Your task to perform on an android device: toggle show notifications on the lock screen Image 0: 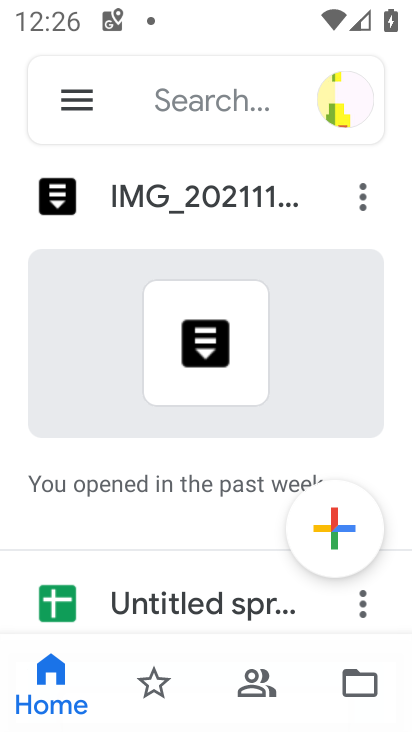
Step 0: press home button
Your task to perform on an android device: toggle show notifications on the lock screen Image 1: 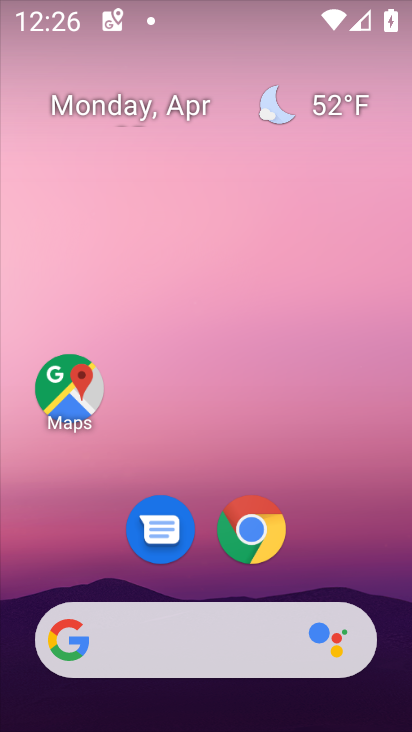
Step 1: drag from (383, 451) to (374, 200)
Your task to perform on an android device: toggle show notifications on the lock screen Image 2: 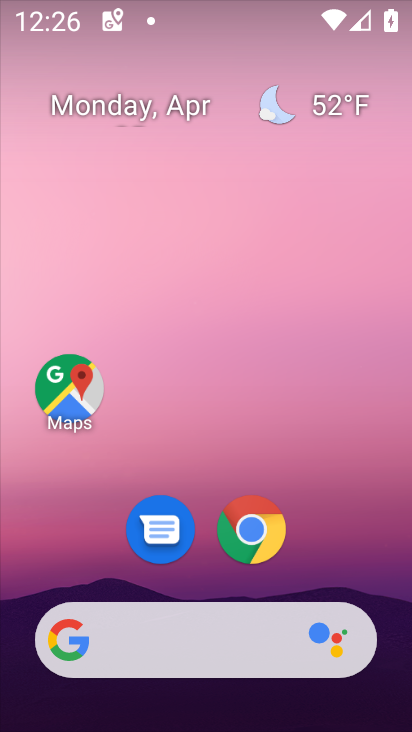
Step 2: drag from (384, 334) to (370, 166)
Your task to perform on an android device: toggle show notifications on the lock screen Image 3: 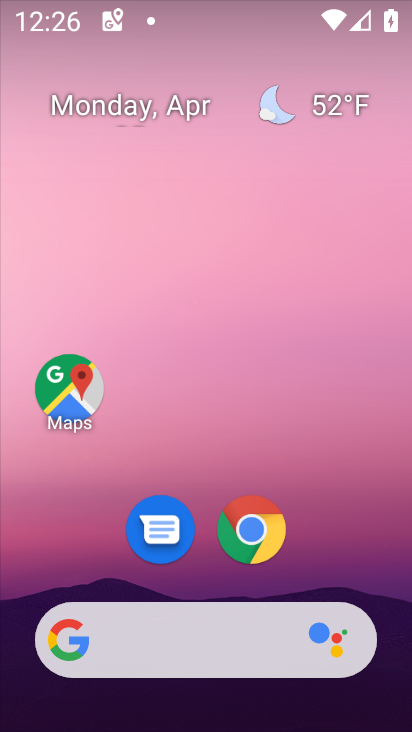
Step 3: drag from (392, 437) to (367, 146)
Your task to perform on an android device: toggle show notifications on the lock screen Image 4: 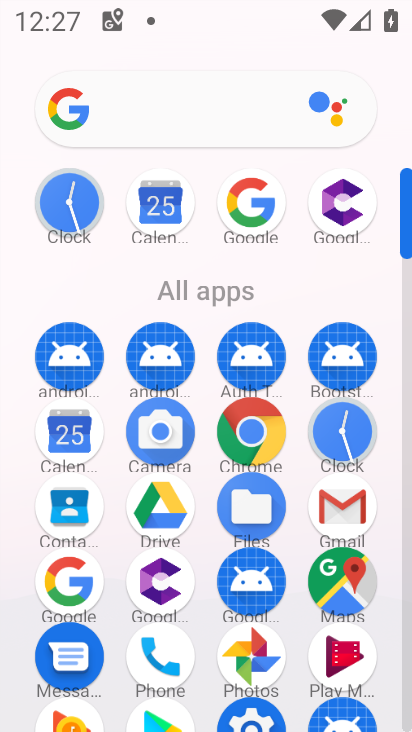
Step 4: click (240, 710)
Your task to perform on an android device: toggle show notifications on the lock screen Image 5: 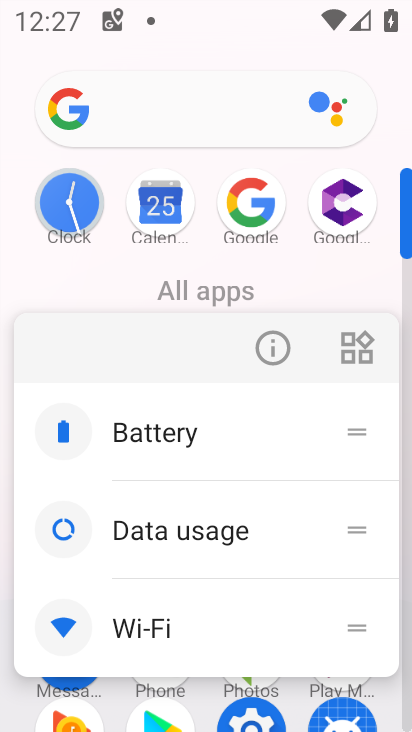
Step 5: click (248, 718)
Your task to perform on an android device: toggle show notifications on the lock screen Image 6: 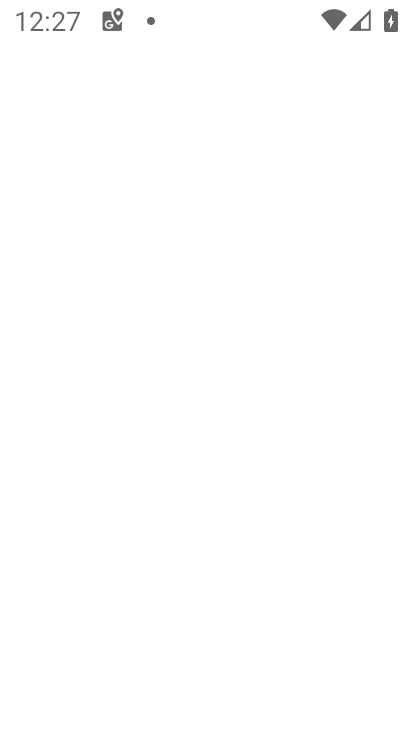
Step 6: click (248, 720)
Your task to perform on an android device: toggle show notifications on the lock screen Image 7: 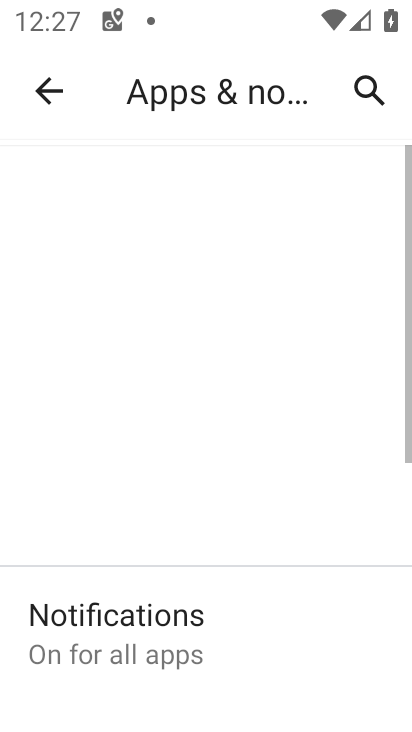
Step 7: click (177, 602)
Your task to perform on an android device: toggle show notifications on the lock screen Image 8: 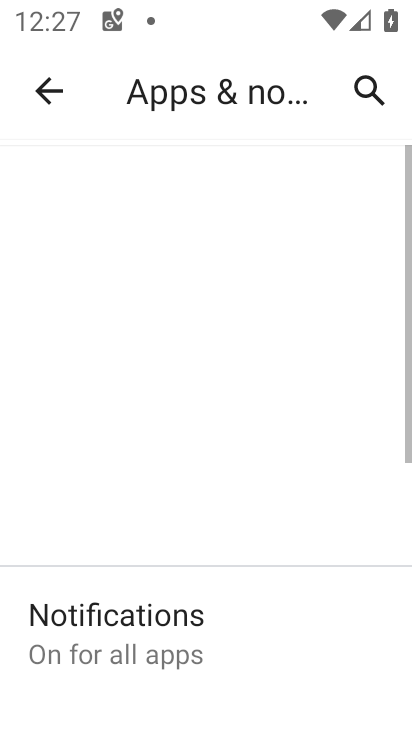
Step 8: click (130, 633)
Your task to perform on an android device: toggle show notifications on the lock screen Image 9: 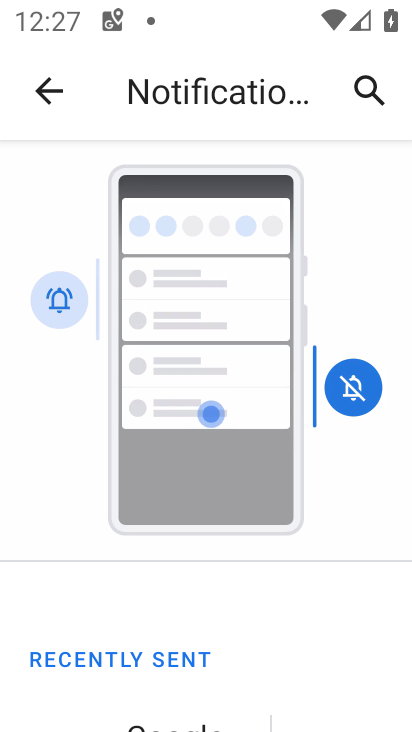
Step 9: drag from (273, 664) to (264, 285)
Your task to perform on an android device: toggle show notifications on the lock screen Image 10: 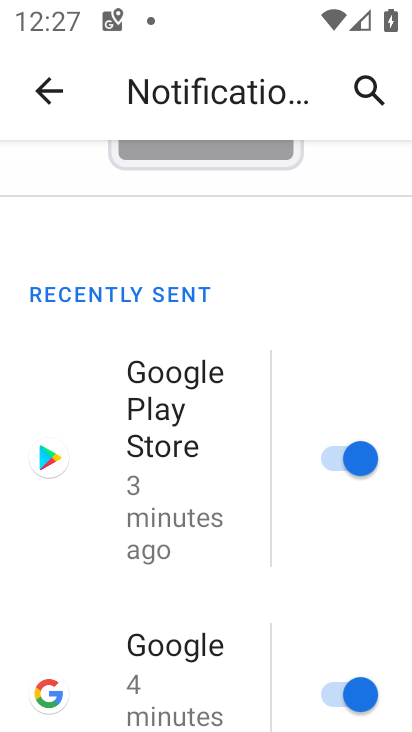
Step 10: drag from (286, 644) to (256, 224)
Your task to perform on an android device: toggle show notifications on the lock screen Image 11: 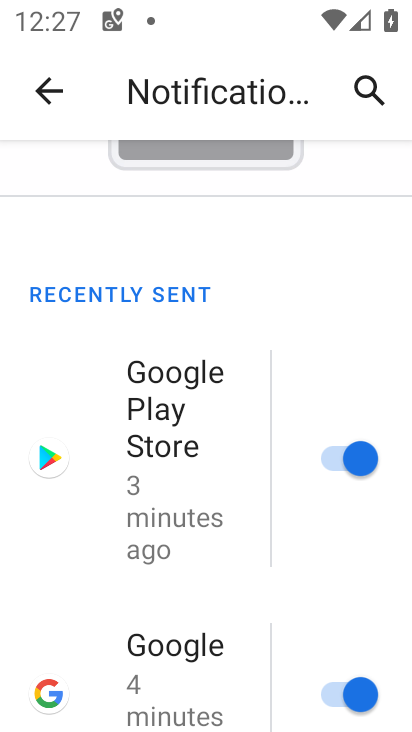
Step 11: drag from (263, 385) to (239, 273)
Your task to perform on an android device: toggle show notifications on the lock screen Image 12: 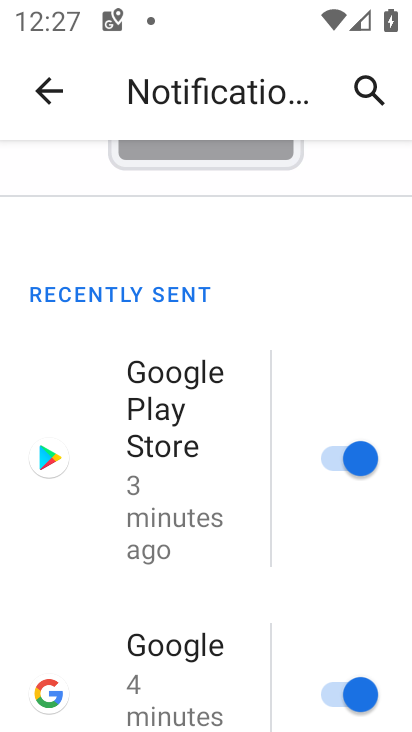
Step 12: drag from (252, 388) to (250, 253)
Your task to perform on an android device: toggle show notifications on the lock screen Image 13: 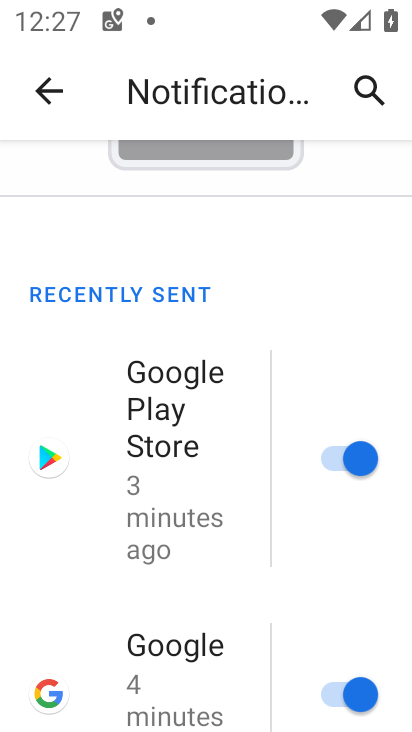
Step 13: drag from (266, 712) to (271, 370)
Your task to perform on an android device: toggle show notifications on the lock screen Image 14: 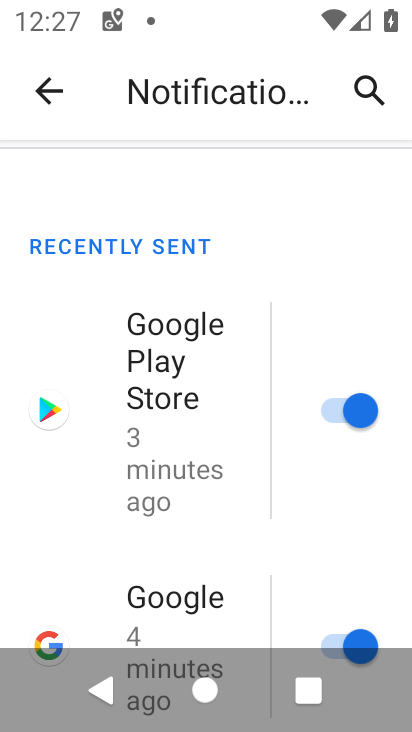
Step 14: drag from (270, 612) to (250, 333)
Your task to perform on an android device: toggle show notifications on the lock screen Image 15: 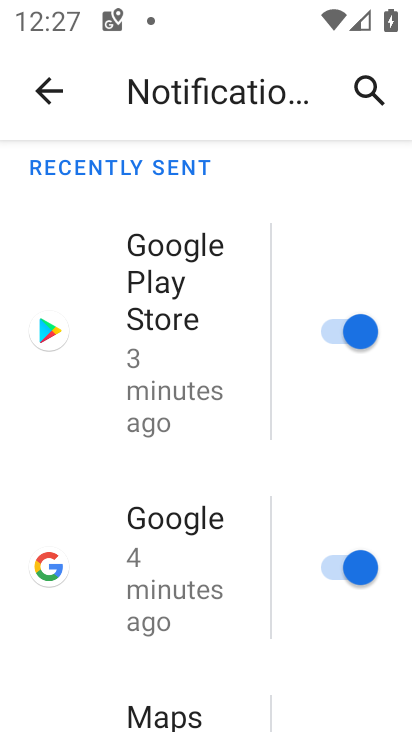
Step 15: drag from (280, 683) to (250, 257)
Your task to perform on an android device: toggle show notifications on the lock screen Image 16: 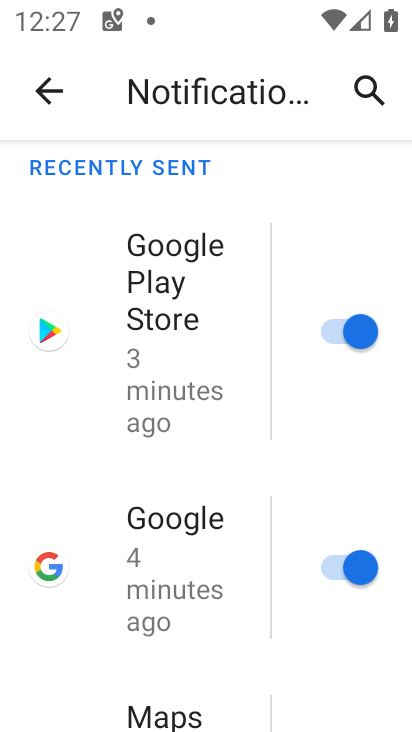
Step 16: drag from (295, 677) to (271, 295)
Your task to perform on an android device: toggle show notifications on the lock screen Image 17: 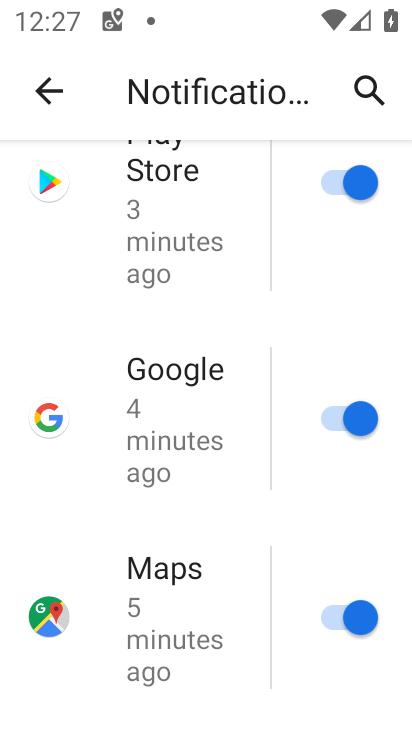
Step 17: drag from (263, 623) to (277, 315)
Your task to perform on an android device: toggle show notifications on the lock screen Image 18: 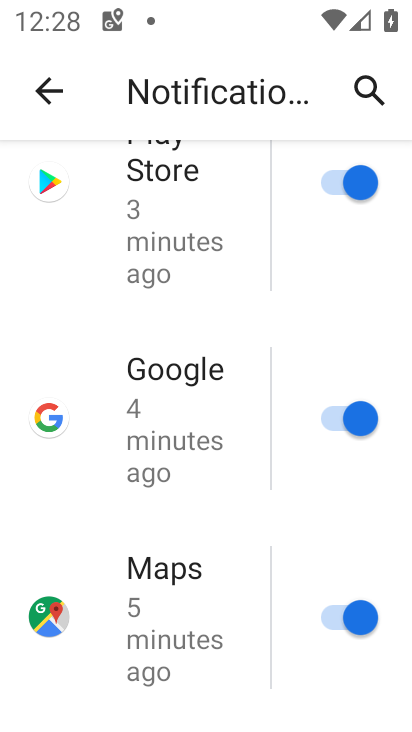
Step 18: drag from (298, 694) to (276, 328)
Your task to perform on an android device: toggle show notifications on the lock screen Image 19: 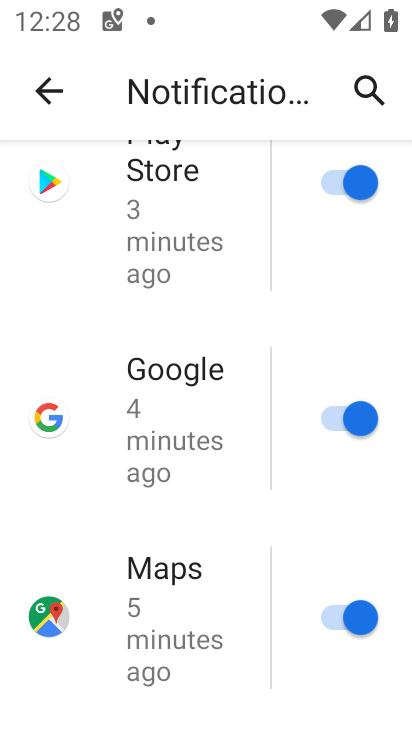
Step 19: drag from (264, 477) to (265, 418)
Your task to perform on an android device: toggle show notifications on the lock screen Image 20: 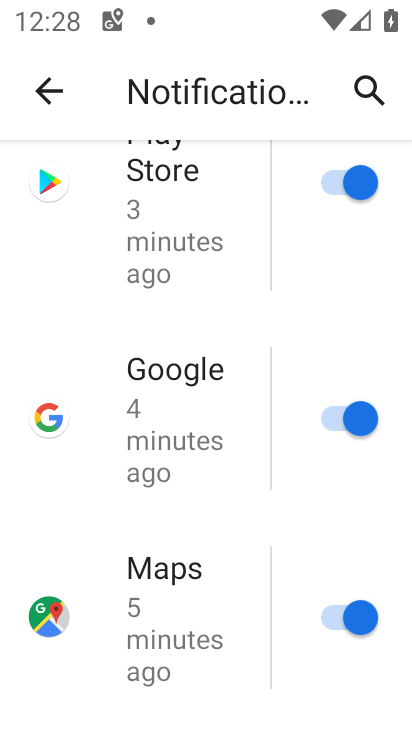
Step 20: drag from (290, 693) to (253, 298)
Your task to perform on an android device: toggle show notifications on the lock screen Image 21: 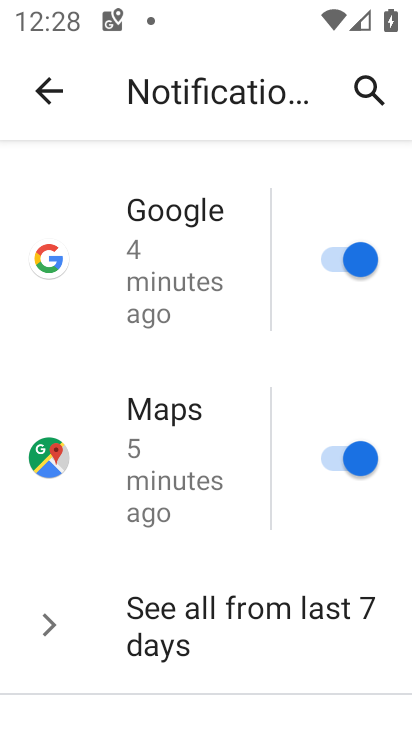
Step 21: click (264, 310)
Your task to perform on an android device: toggle show notifications on the lock screen Image 22: 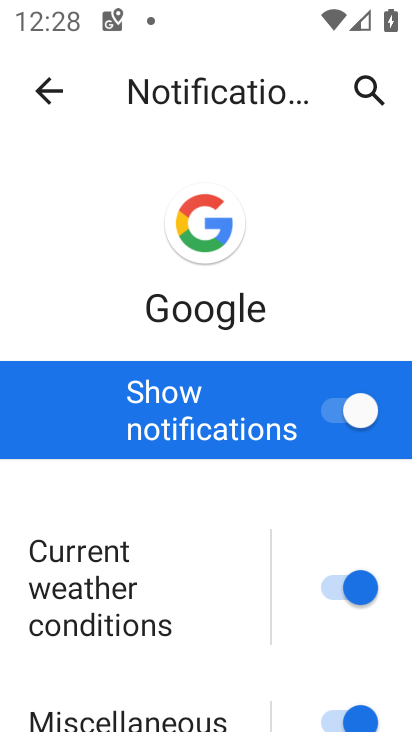
Step 22: drag from (203, 646) to (214, 339)
Your task to perform on an android device: toggle show notifications on the lock screen Image 23: 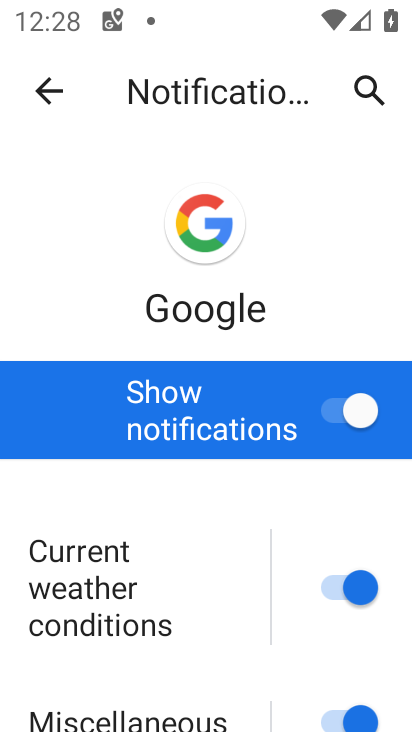
Step 23: drag from (228, 653) to (237, 321)
Your task to perform on an android device: toggle show notifications on the lock screen Image 24: 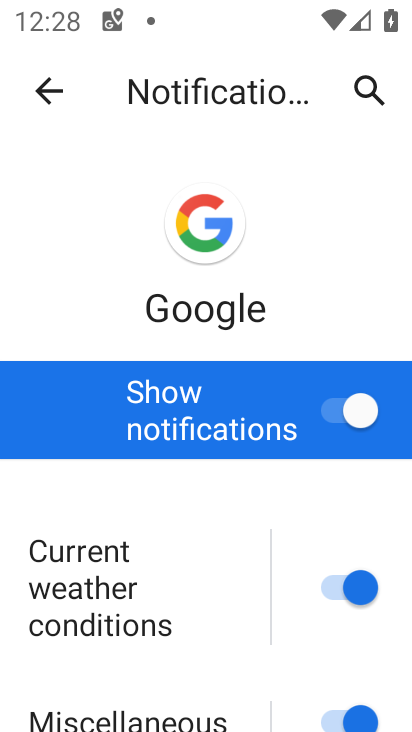
Step 24: click (57, 91)
Your task to perform on an android device: toggle show notifications on the lock screen Image 25: 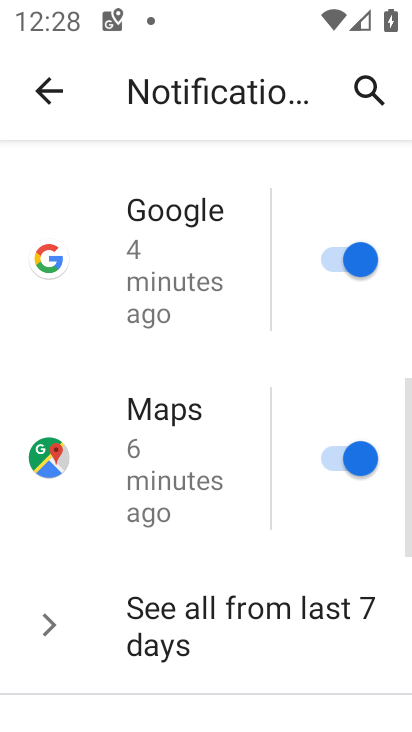
Step 25: drag from (225, 347) to (222, 229)
Your task to perform on an android device: toggle show notifications on the lock screen Image 26: 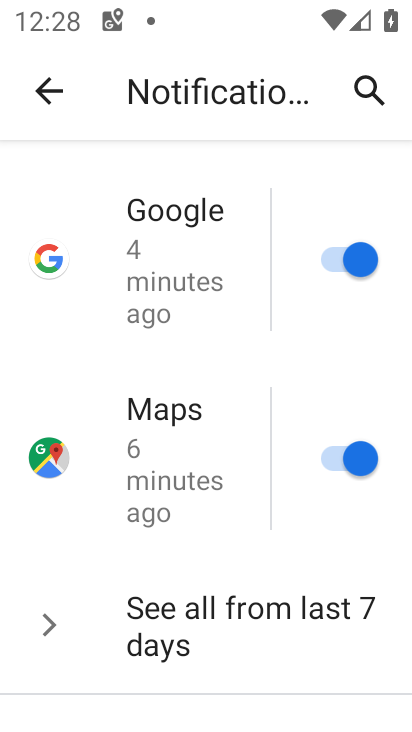
Step 26: drag from (285, 627) to (277, 264)
Your task to perform on an android device: toggle show notifications on the lock screen Image 27: 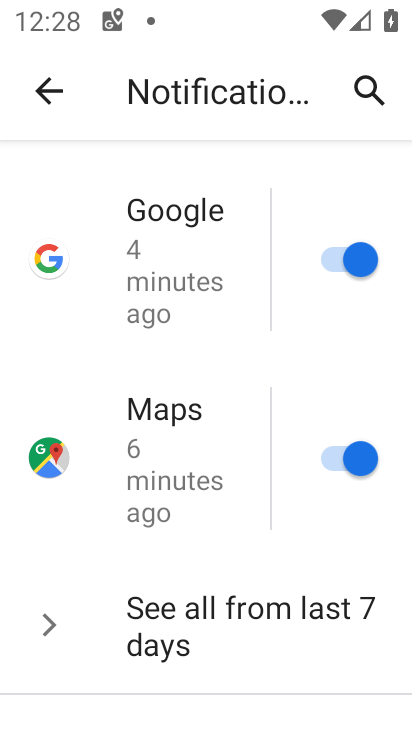
Step 27: drag from (249, 439) to (239, 278)
Your task to perform on an android device: toggle show notifications on the lock screen Image 28: 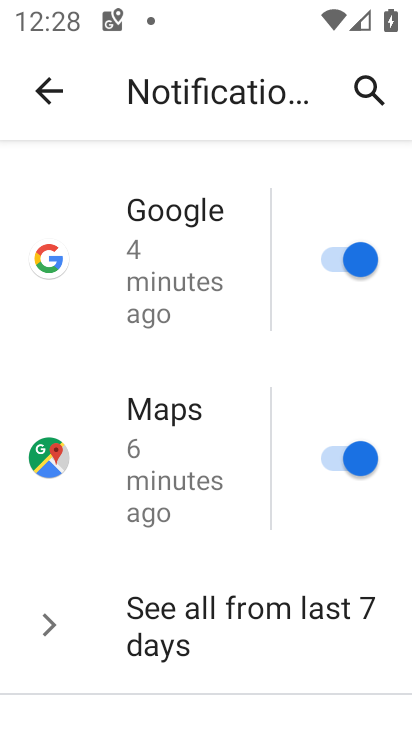
Step 28: drag from (255, 571) to (268, 175)
Your task to perform on an android device: toggle show notifications on the lock screen Image 29: 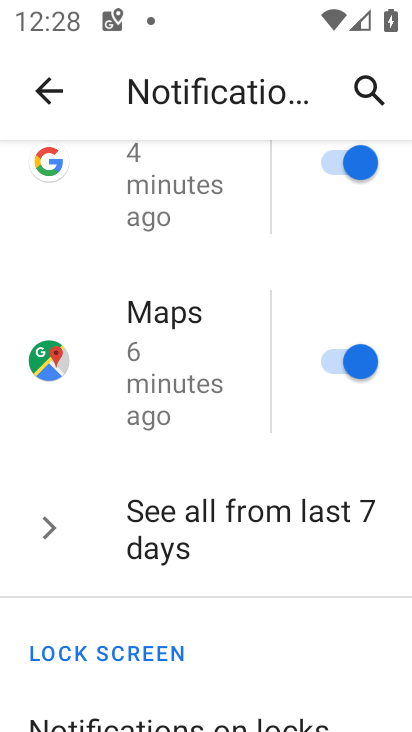
Step 29: click (160, 715)
Your task to perform on an android device: toggle show notifications on the lock screen Image 30: 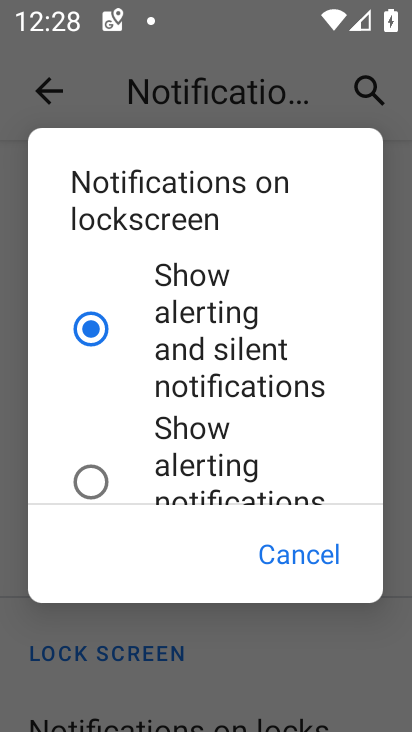
Step 30: click (96, 479)
Your task to perform on an android device: toggle show notifications on the lock screen Image 31: 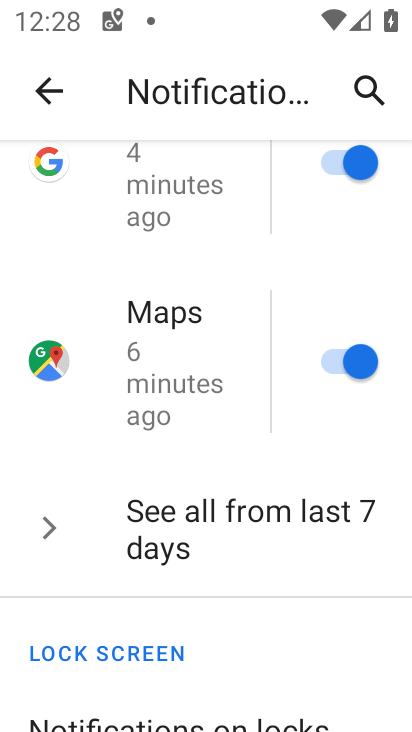
Step 31: task complete